Your task to perform on an android device: Open Google Maps and go to "Timeline" Image 0: 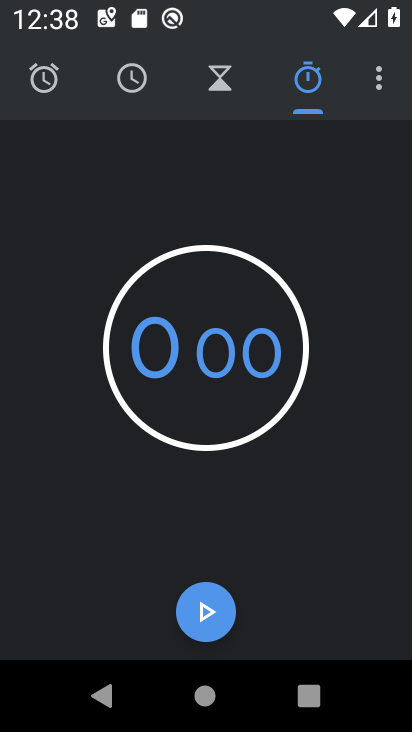
Step 0: press home button
Your task to perform on an android device: Open Google Maps and go to "Timeline" Image 1: 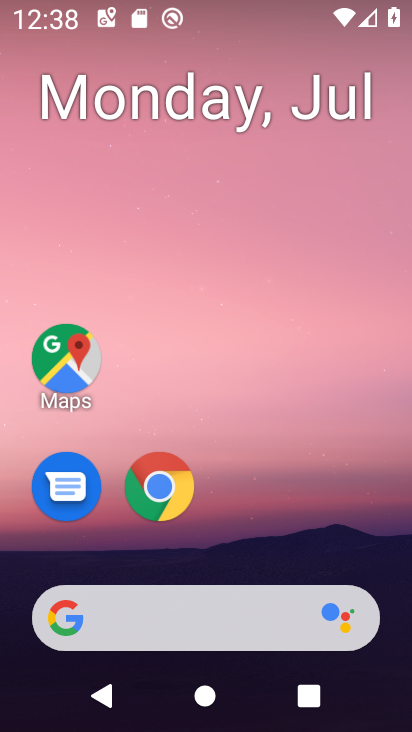
Step 1: drag from (361, 524) to (356, 119)
Your task to perform on an android device: Open Google Maps and go to "Timeline" Image 2: 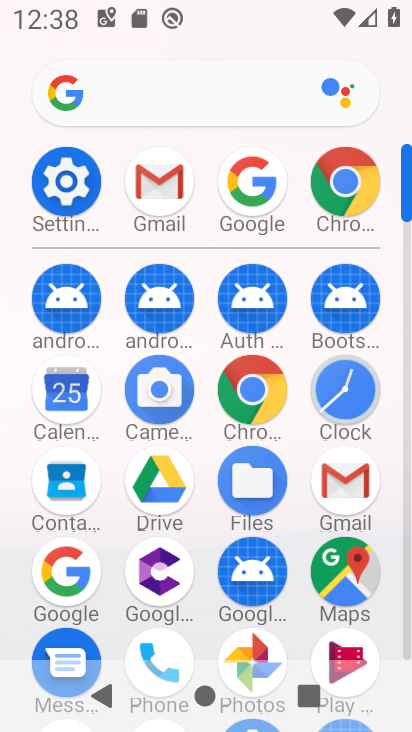
Step 2: click (358, 595)
Your task to perform on an android device: Open Google Maps and go to "Timeline" Image 3: 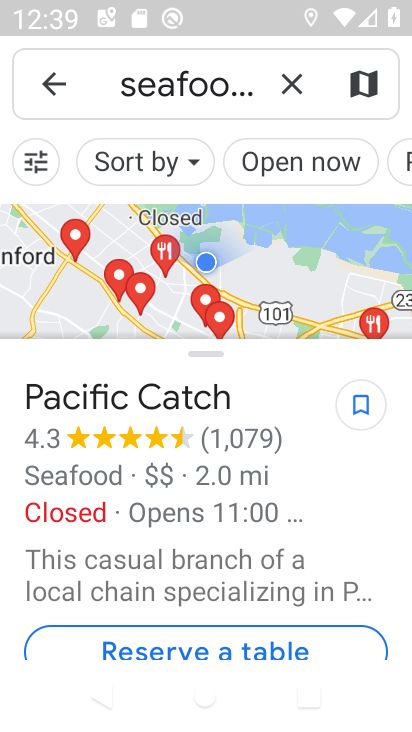
Step 3: press back button
Your task to perform on an android device: Open Google Maps and go to "Timeline" Image 4: 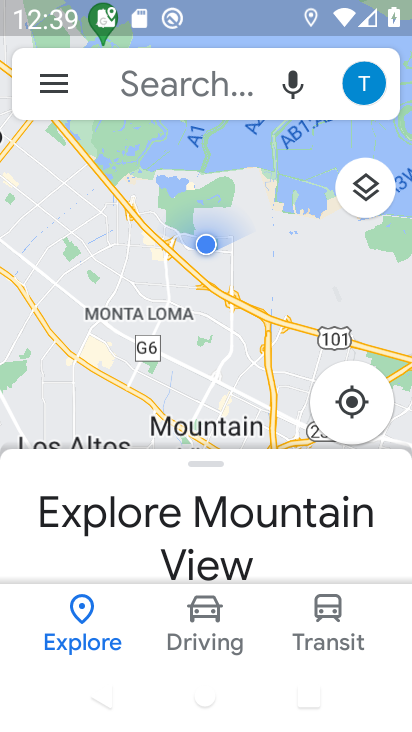
Step 4: click (49, 87)
Your task to perform on an android device: Open Google Maps and go to "Timeline" Image 5: 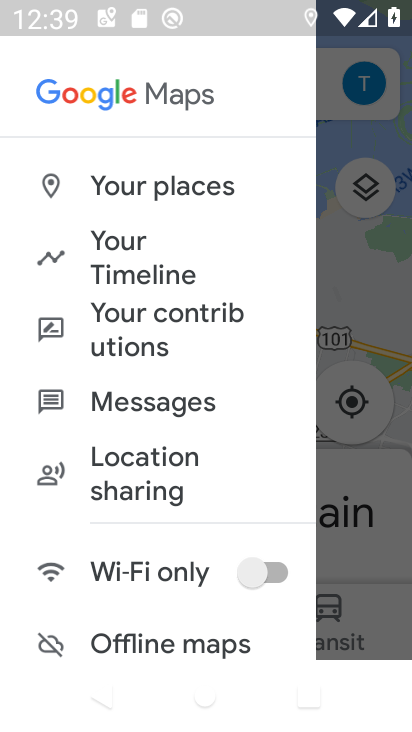
Step 5: click (155, 252)
Your task to perform on an android device: Open Google Maps and go to "Timeline" Image 6: 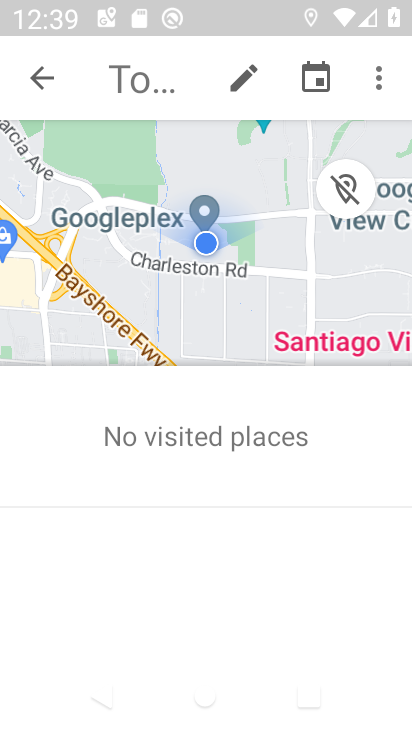
Step 6: task complete